Your task to perform on an android device: Go to Android settings Image 0: 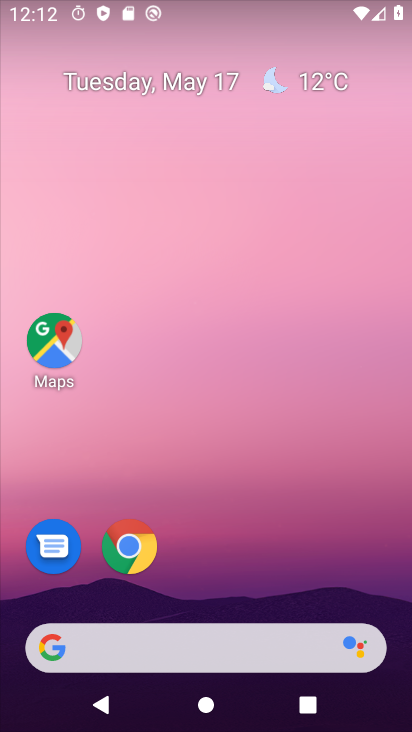
Step 0: drag from (136, 638) to (246, 37)
Your task to perform on an android device: Go to Android settings Image 1: 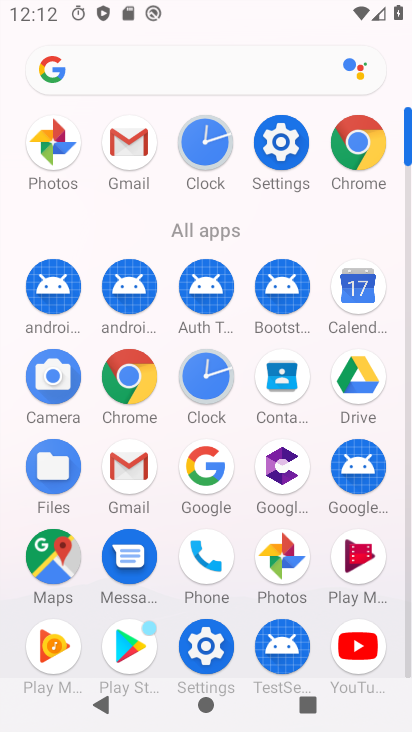
Step 1: click (283, 159)
Your task to perform on an android device: Go to Android settings Image 2: 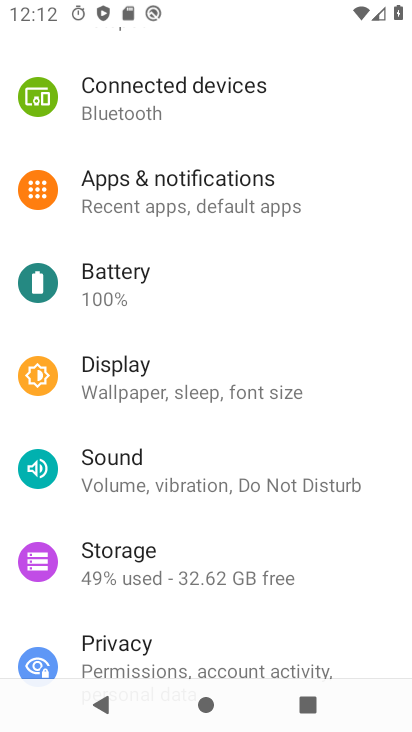
Step 2: task complete